Your task to perform on an android device: delete location history Image 0: 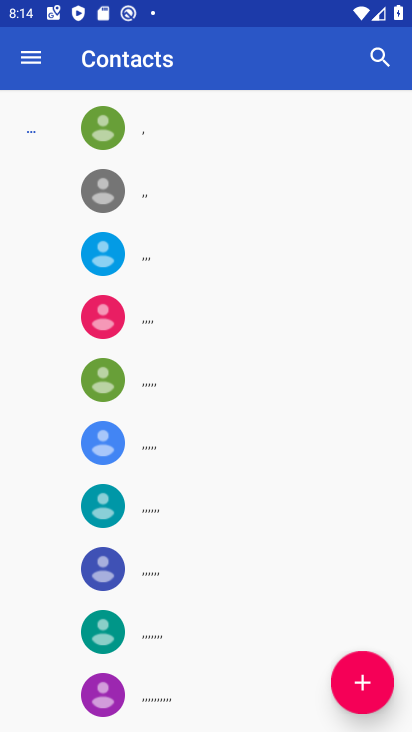
Step 0: press home button
Your task to perform on an android device: delete location history Image 1: 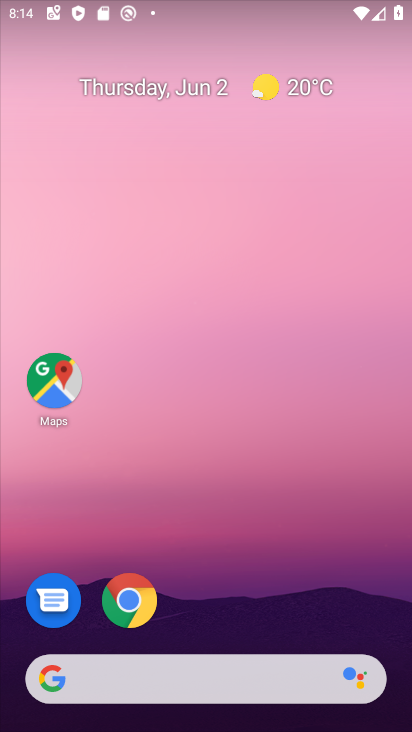
Step 1: drag from (359, 573) to (365, 211)
Your task to perform on an android device: delete location history Image 2: 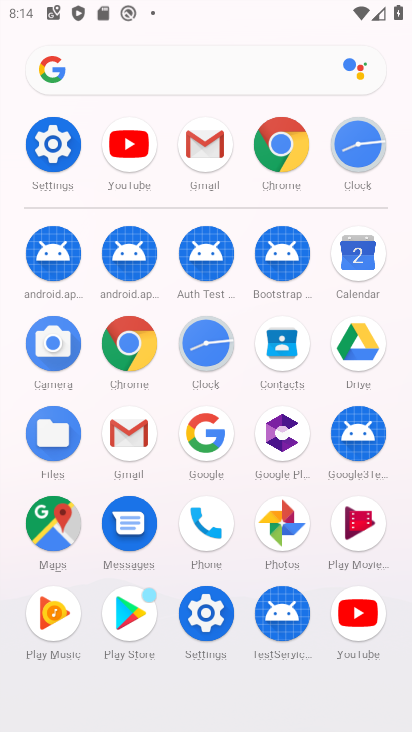
Step 2: click (58, 532)
Your task to perform on an android device: delete location history Image 3: 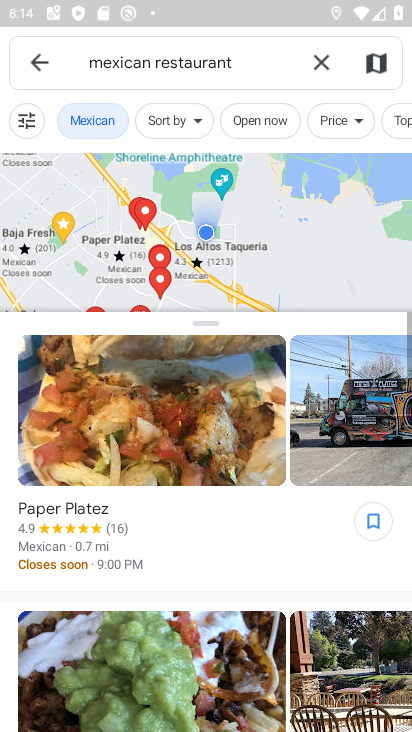
Step 3: press back button
Your task to perform on an android device: delete location history Image 4: 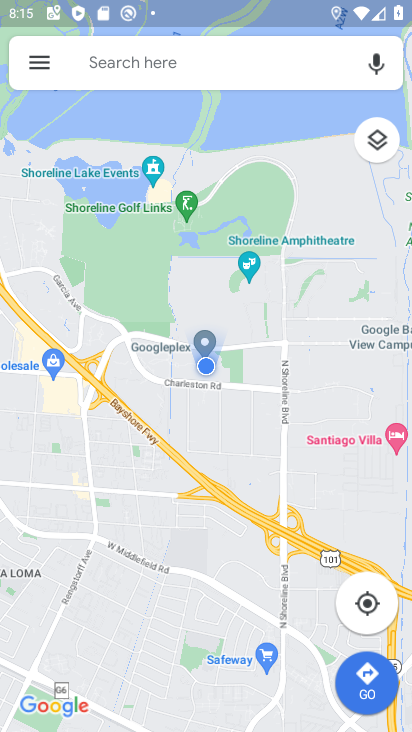
Step 4: click (44, 65)
Your task to perform on an android device: delete location history Image 5: 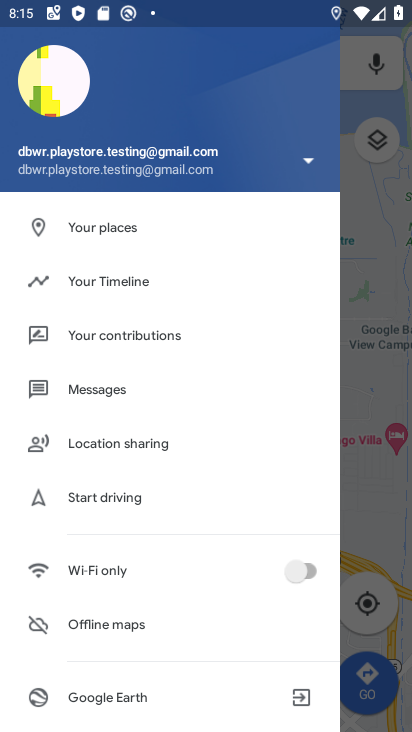
Step 5: drag from (228, 441) to (238, 358)
Your task to perform on an android device: delete location history Image 6: 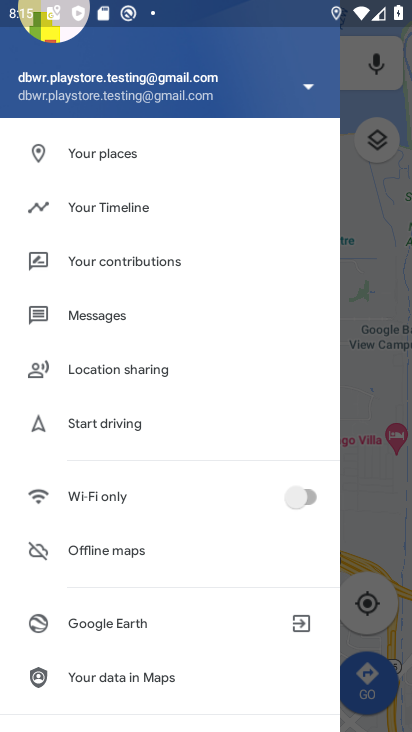
Step 6: click (159, 206)
Your task to perform on an android device: delete location history Image 7: 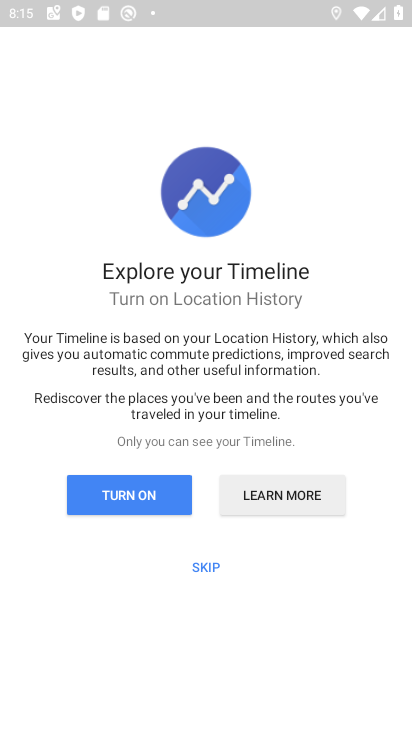
Step 7: click (207, 574)
Your task to perform on an android device: delete location history Image 8: 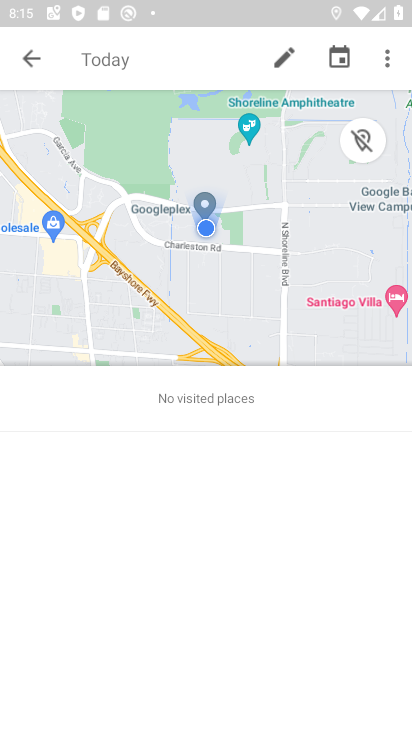
Step 8: click (386, 66)
Your task to perform on an android device: delete location history Image 9: 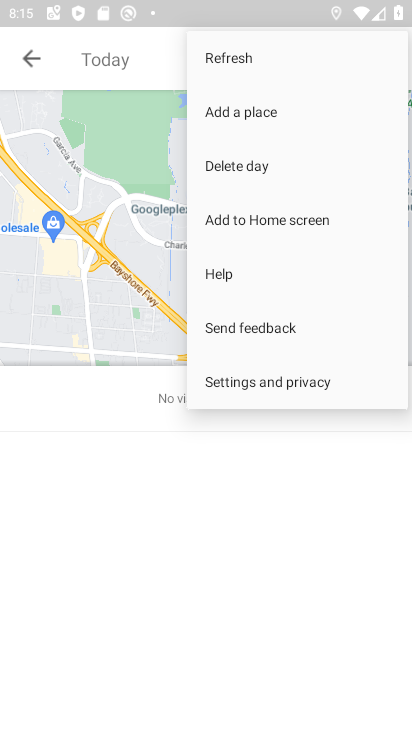
Step 9: click (331, 383)
Your task to perform on an android device: delete location history Image 10: 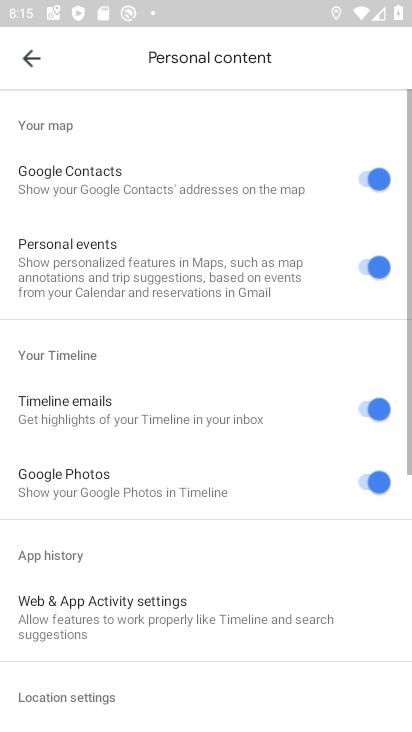
Step 10: drag from (279, 469) to (288, 369)
Your task to perform on an android device: delete location history Image 11: 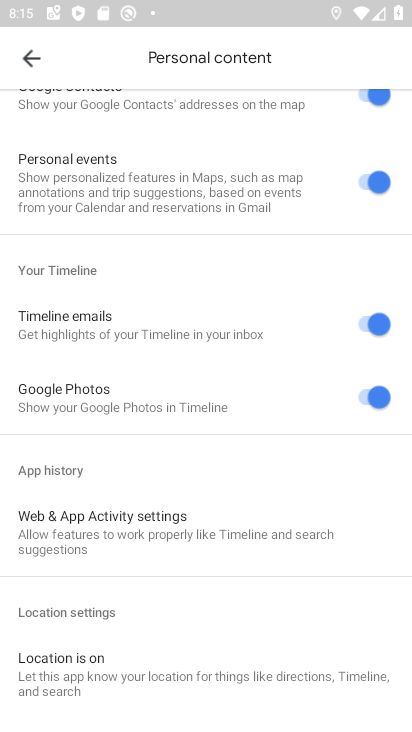
Step 11: drag from (289, 479) to (289, 399)
Your task to perform on an android device: delete location history Image 12: 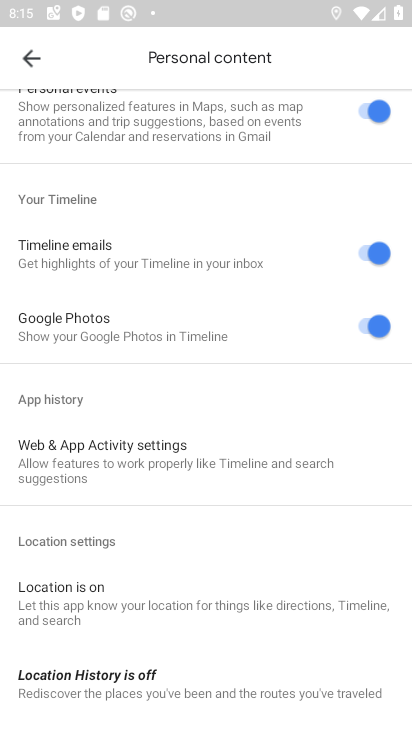
Step 12: drag from (289, 501) to (298, 398)
Your task to perform on an android device: delete location history Image 13: 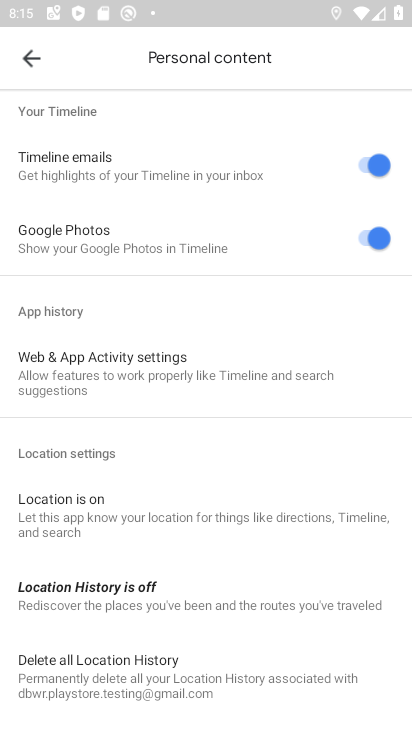
Step 13: drag from (278, 520) to (278, 388)
Your task to perform on an android device: delete location history Image 14: 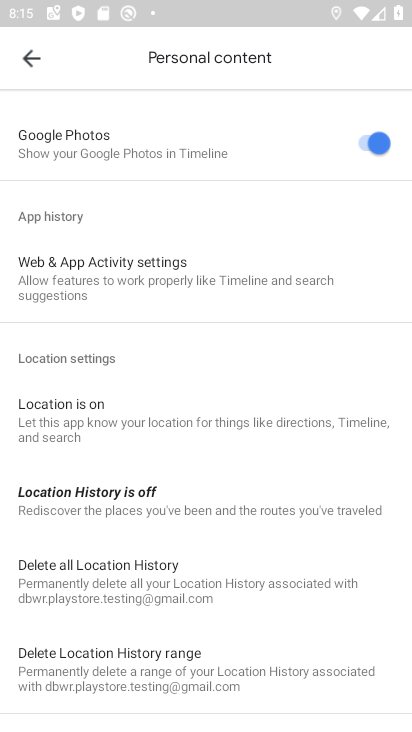
Step 14: drag from (287, 541) to (304, 381)
Your task to perform on an android device: delete location history Image 15: 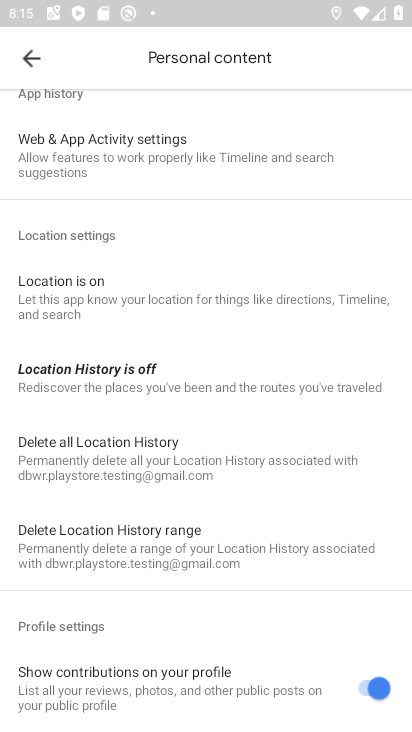
Step 15: drag from (282, 567) to (285, 334)
Your task to perform on an android device: delete location history Image 16: 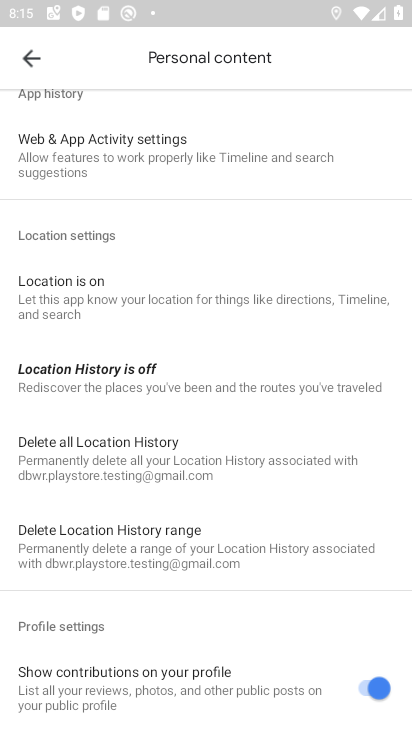
Step 16: click (192, 471)
Your task to perform on an android device: delete location history Image 17: 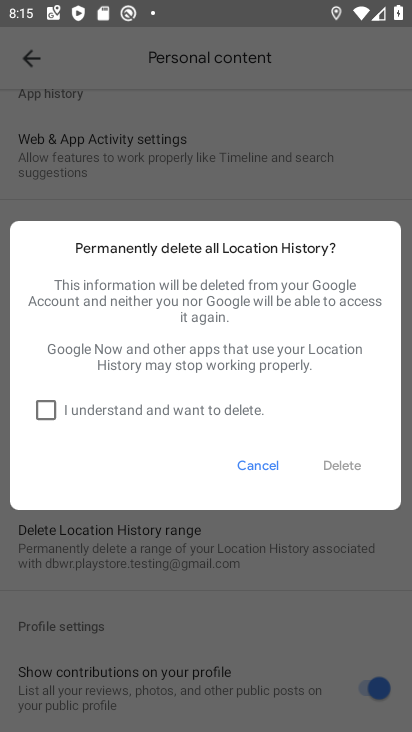
Step 17: click (38, 419)
Your task to perform on an android device: delete location history Image 18: 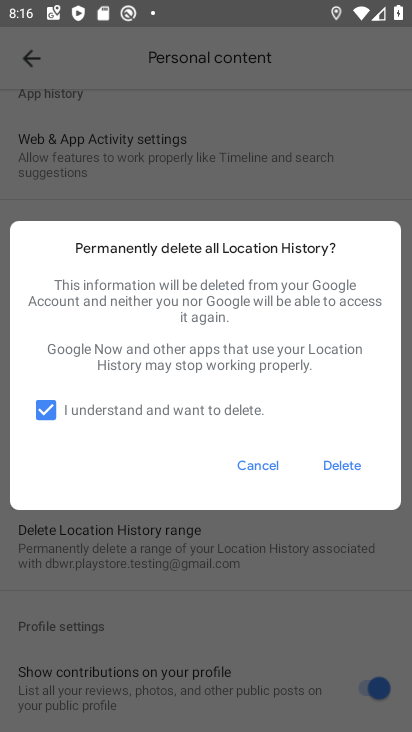
Step 18: click (353, 460)
Your task to perform on an android device: delete location history Image 19: 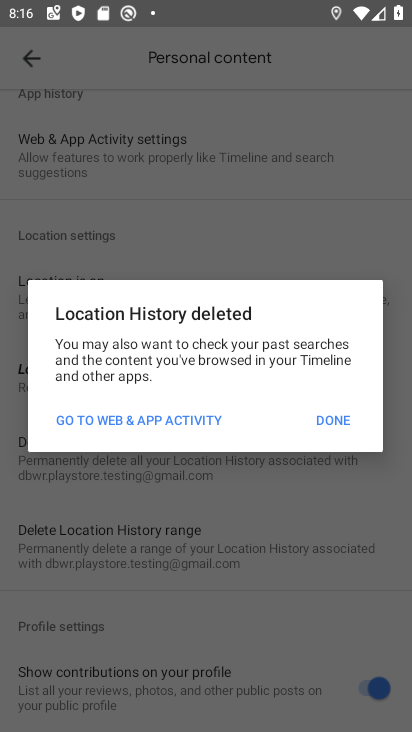
Step 19: click (326, 425)
Your task to perform on an android device: delete location history Image 20: 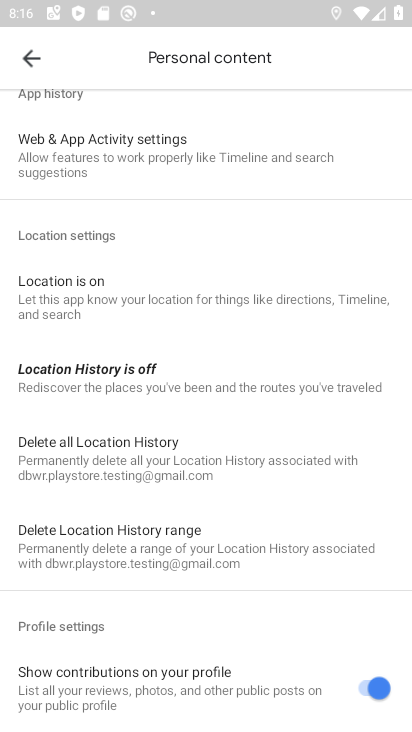
Step 20: task complete